Your task to perform on an android device: Empty the shopping cart on walmart.com. Add razer nari to the cart on walmart.com Image 0: 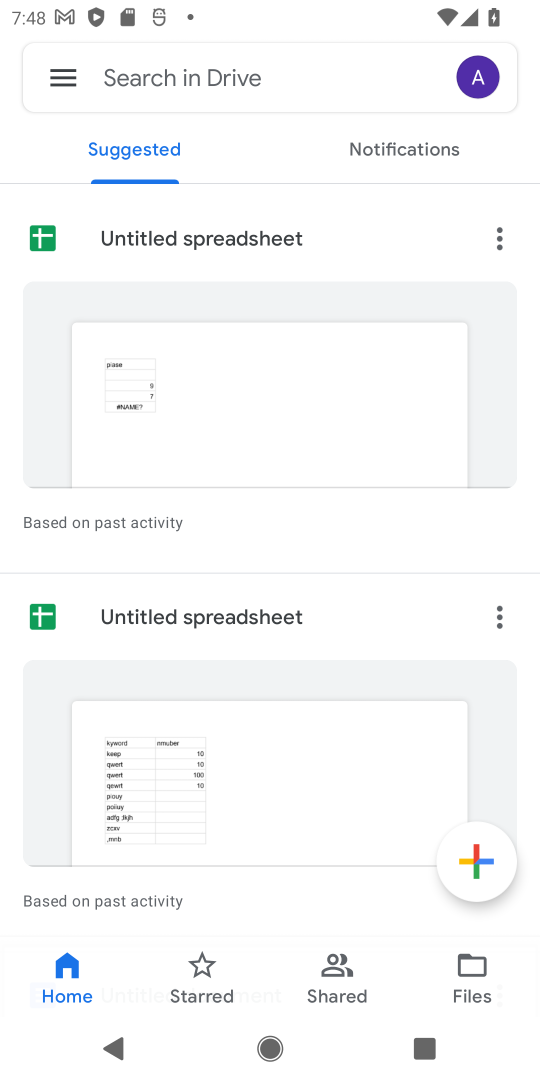
Step 0: press home button
Your task to perform on an android device: Empty the shopping cart on walmart.com. Add razer nari to the cart on walmart.com Image 1: 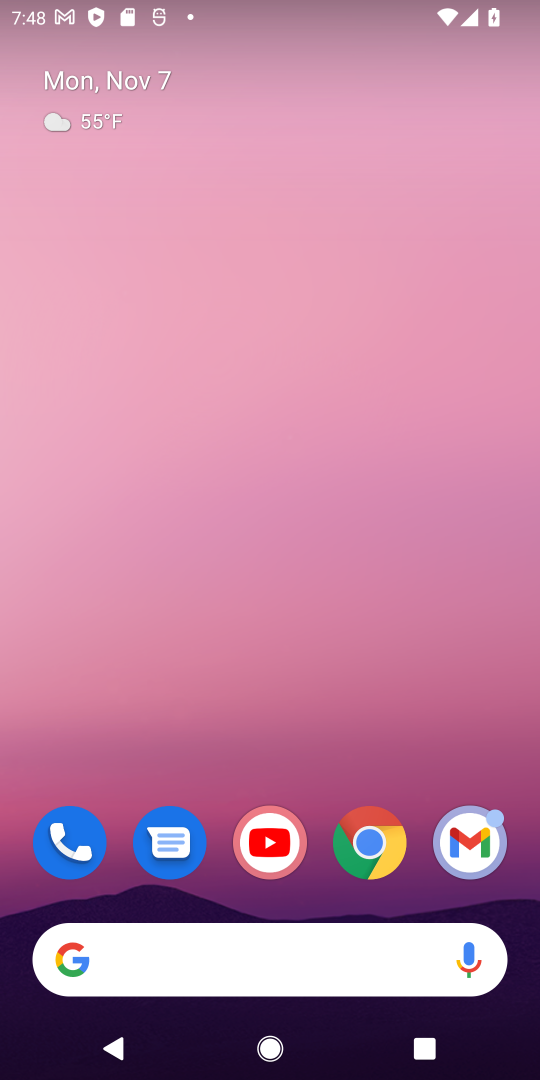
Step 1: click (369, 842)
Your task to perform on an android device: Empty the shopping cart on walmart.com. Add razer nari to the cart on walmart.com Image 2: 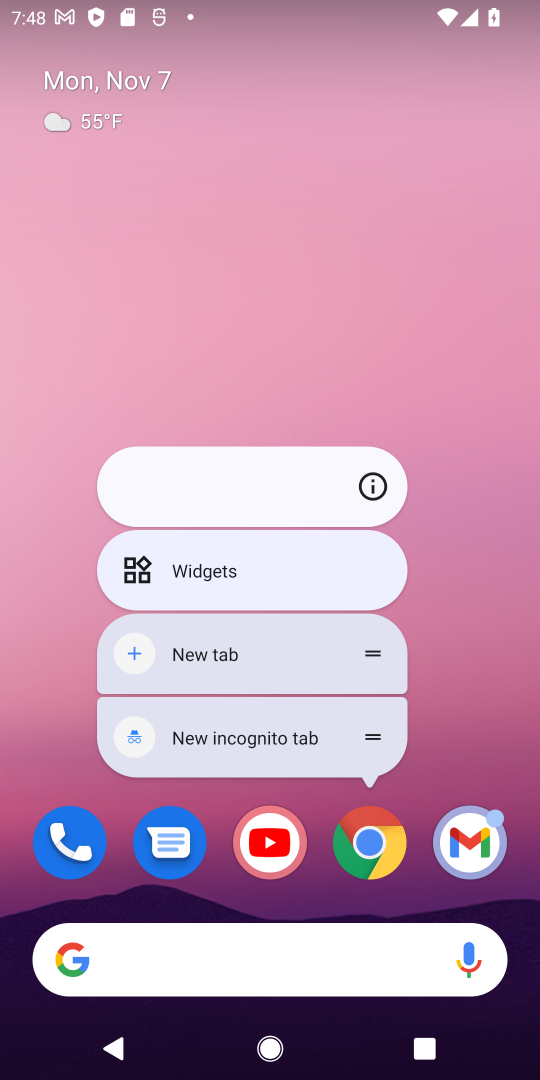
Step 2: click (369, 844)
Your task to perform on an android device: Empty the shopping cart on walmart.com. Add razer nari to the cart on walmart.com Image 3: 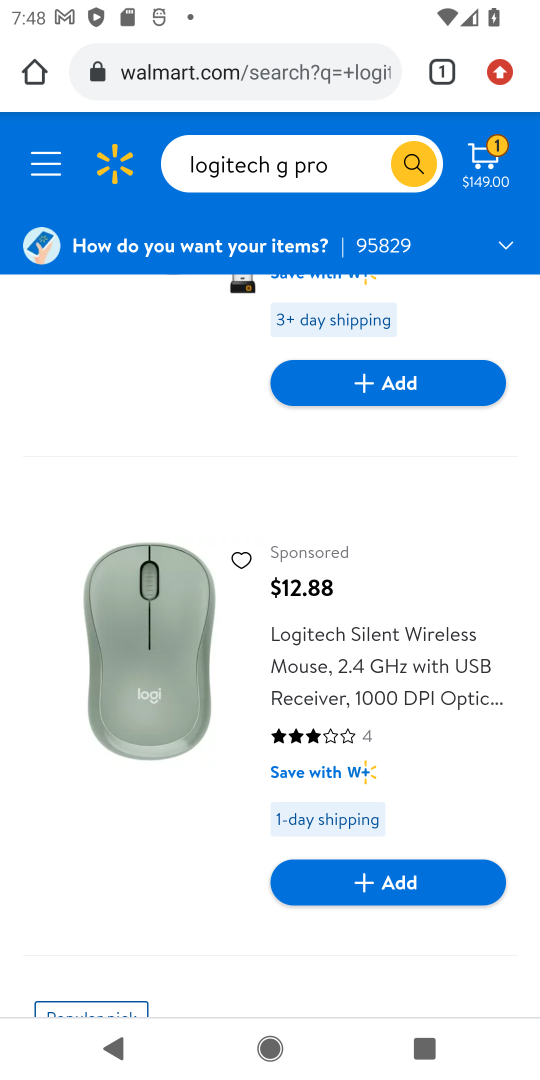
Step 3: click (334, 175)
Your task to perform on an android device: Empty the shopping cart on walmart.com. Add razer nari to the cart on walmart.com Image 4: 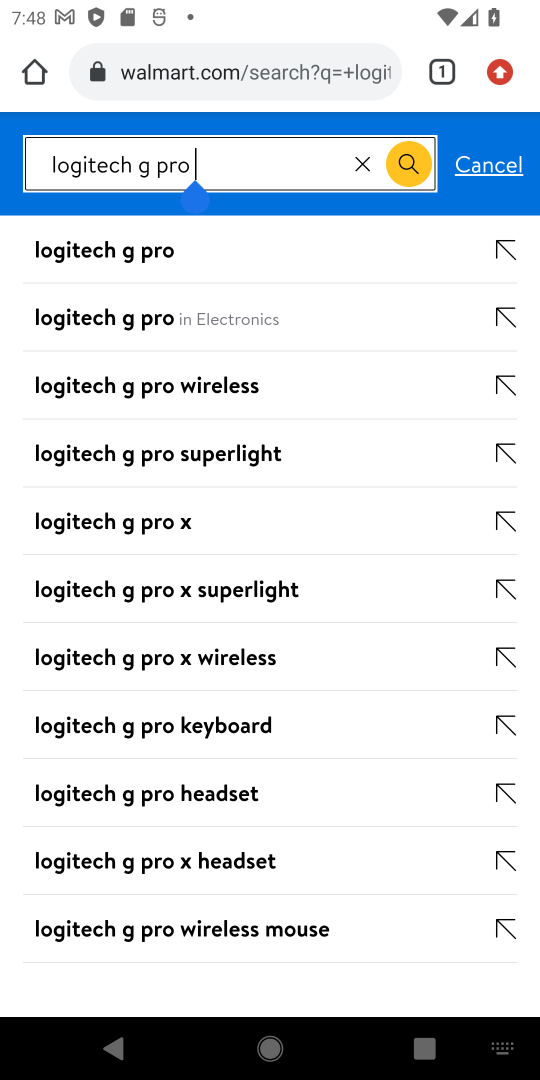
Step 4: click (360, 166)
Your task to perform on an android device: Empty the shopping cart on walmart.com. Add razer nari to the cart on walmart.com Image 5: 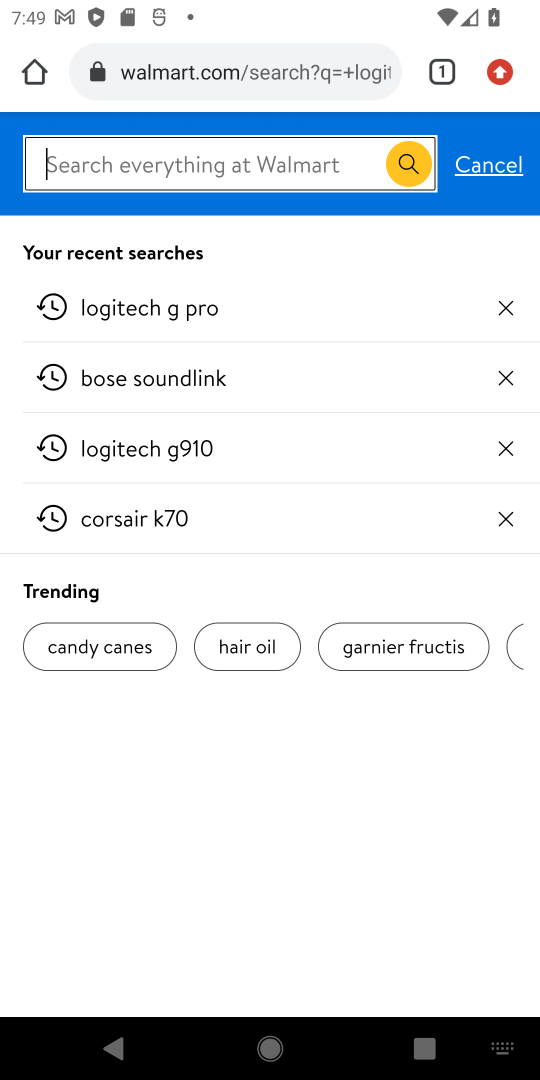
Step 5: type "razer nari"
Your task to perform on an android device: Empty the shopping cart on walmart.com. Add razer nari to the cart on walmart.com Image 6: 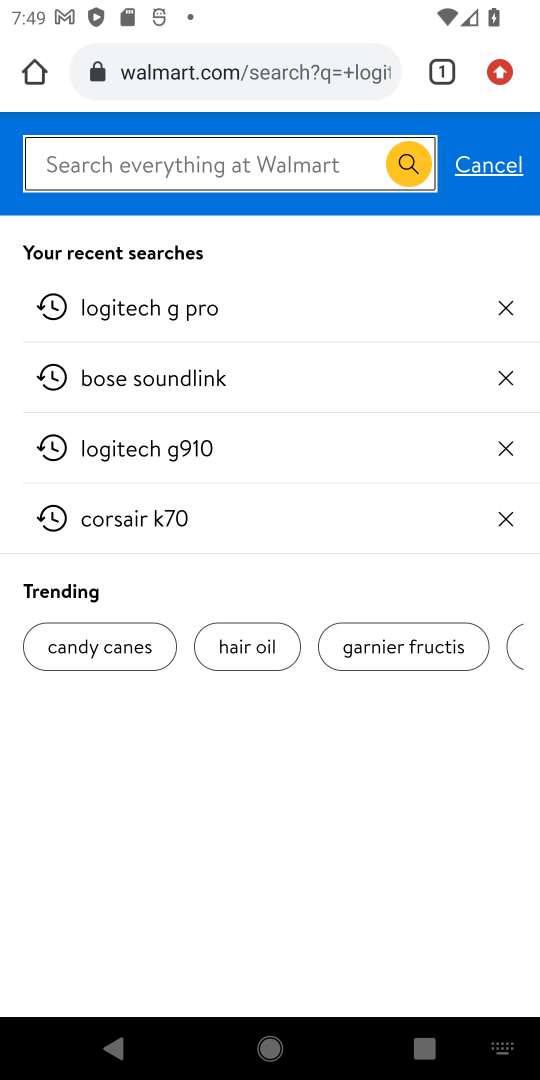
Step 6: press enter
Your task to perform on an android device: Empty the shopping cart on walmart.com. Add razer nari to the cart on walmart.com Image 7: 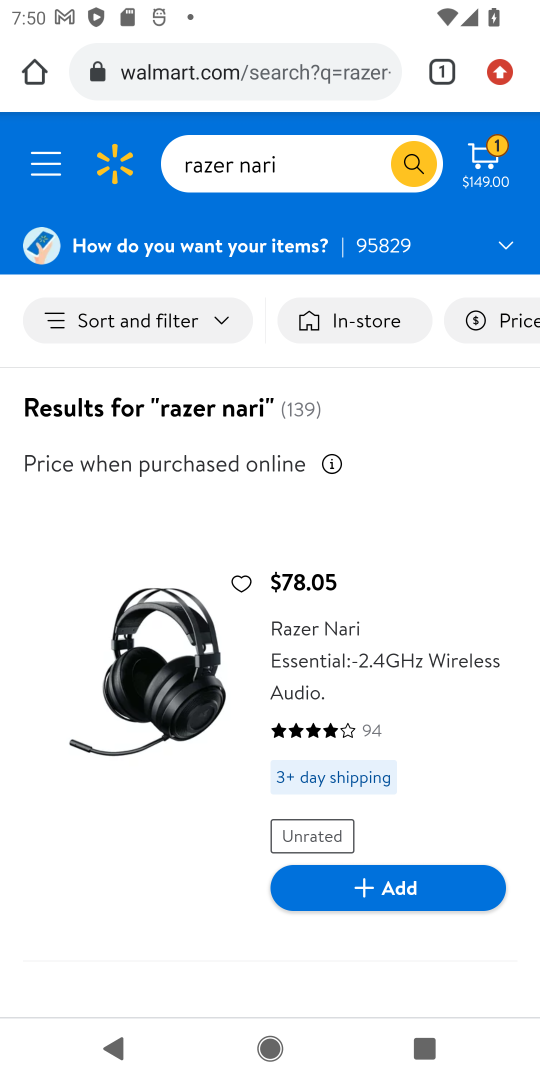
Step 7: click (408, 892)
Your task to perform on an android device: Empty the shopping cart on walmart.com. Add razer nari to the cart on walmart.com Image 8: 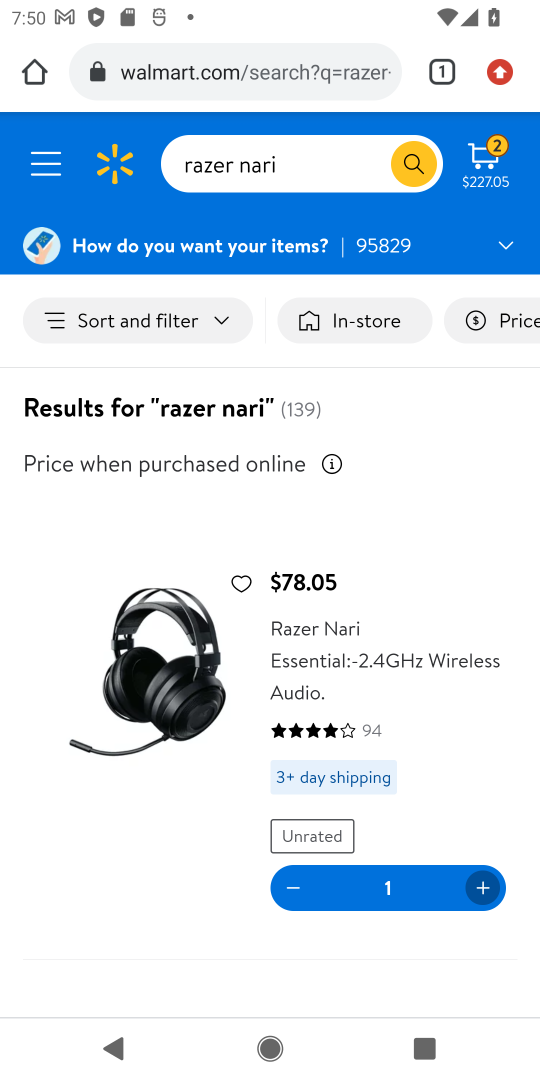
Step 8: click (397, 886)
Your task to perform on an android device: Empty the shopping cart on walmart.com. Add razer nari to the cart on walmart.com Image 9: 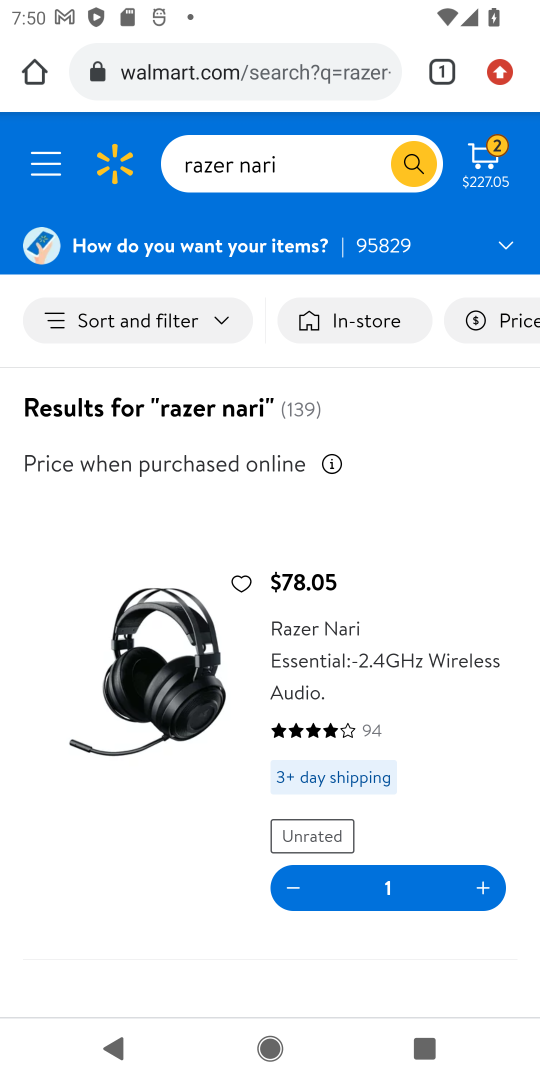
Step 9: click (490, 145)
Your task to perform on an android device: Empty the shopping cart on walmart.com. Add razer nari to the cart on walmart.com Image 10: 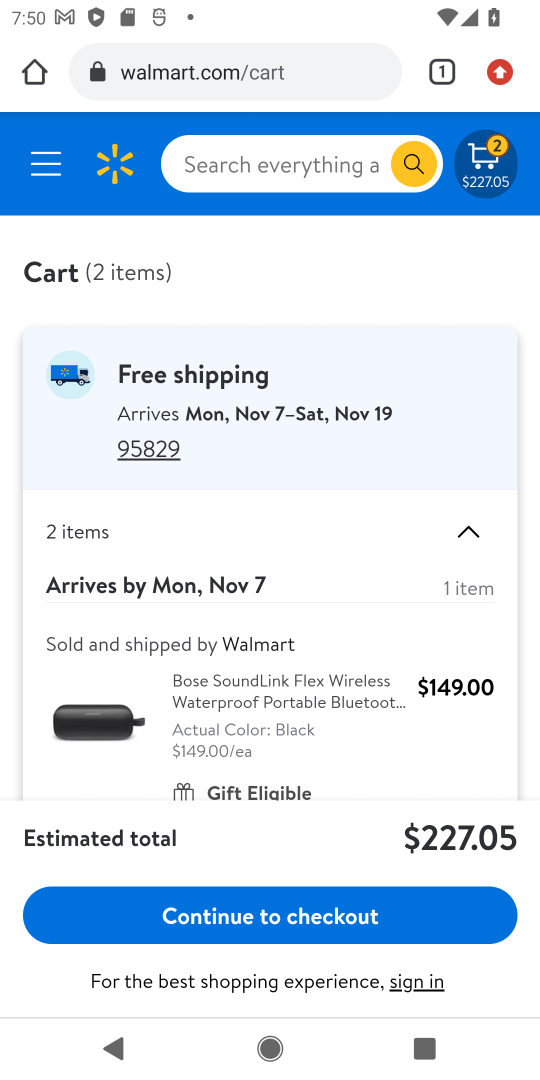
Step 10: drag from (203, 709) to (383, 350)
Your task to perform on an android device: Empty the shopping cart on walmart.com. Add razer nari to the cart on walmart.com Image 11: 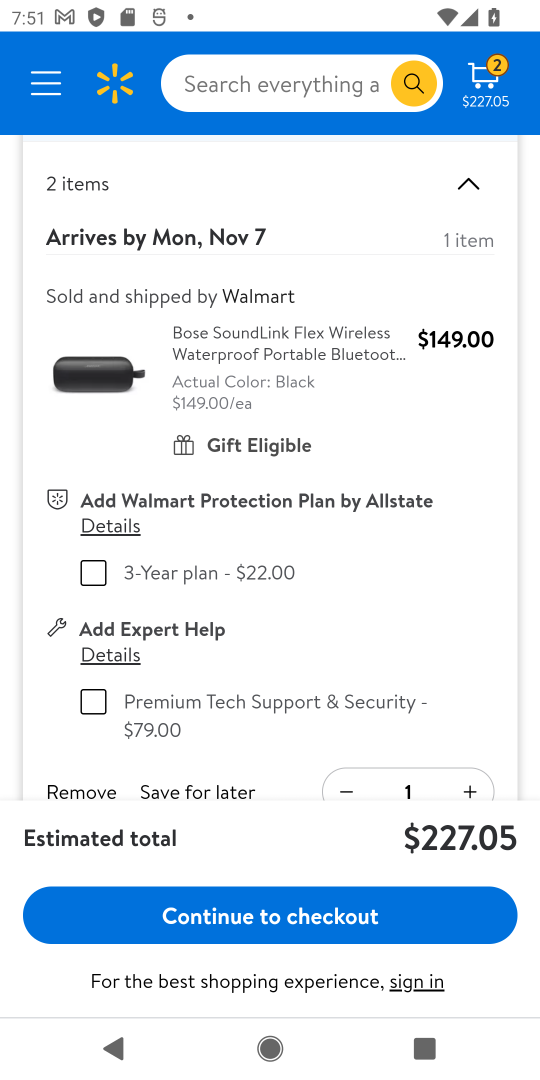
Step 11: click (73, 795)
Your task to perform on an android device: Empty the shopping cart on walmart.com. Add razer nari to the cart on walmart.com Image 12: 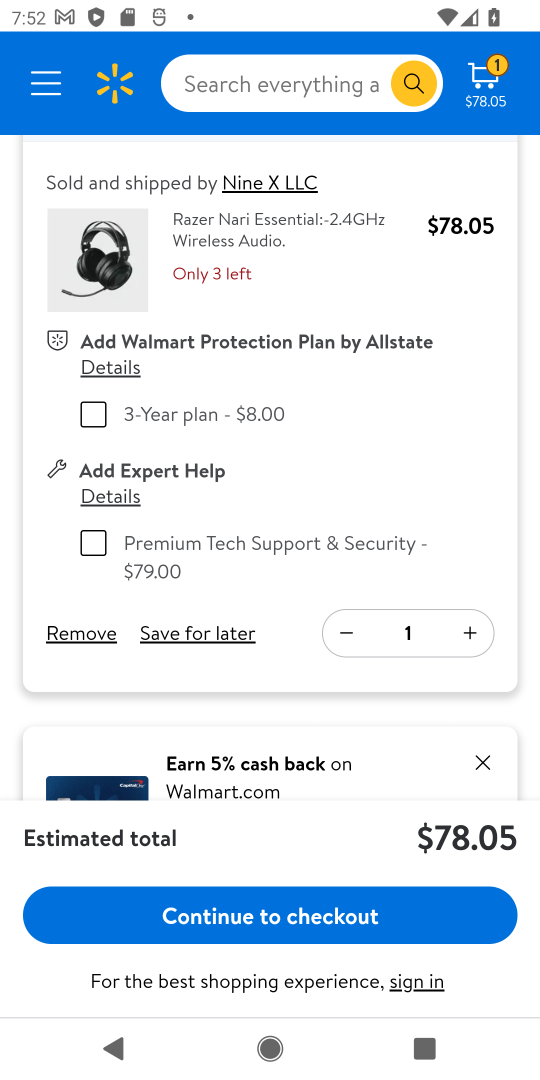
Step 12: task complete